Your task to perform on an android device: turn on data saver in the chrome app Image 0: 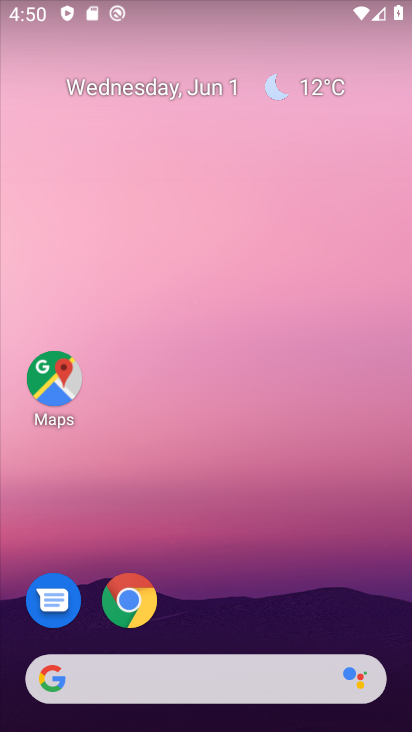
Step 0: click (128, 600)
Your task to perform on an android device: turn on data saver in the chrome app Image 1: 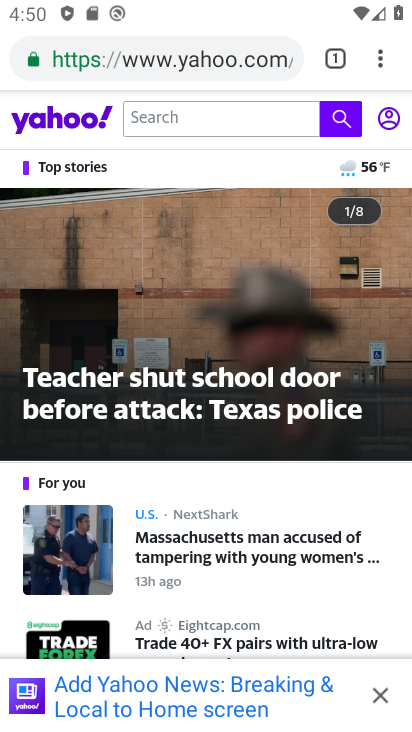
Step 1: click (381, 58)
Your task to perform on an android device: turn on data saver in the chrome app Image 2: 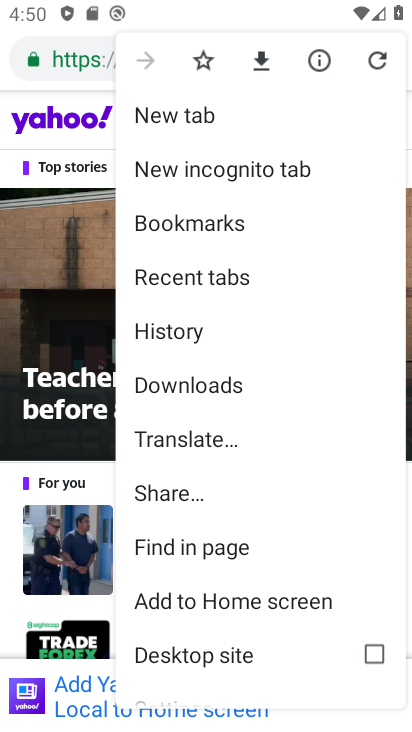
Step 2: drag from (193, 467) to (231, 391)
Your task to perform on an android device: turn on data saver in the chrome app Image 3: 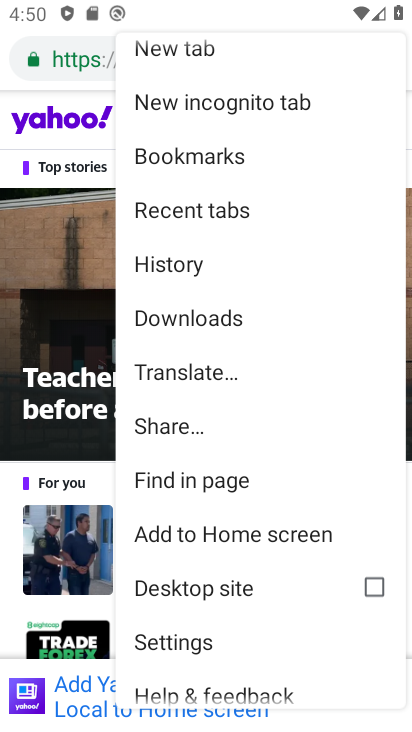
Step 3: drag from (195, 558) to (239, 491)
Your task to perform on an android device: turn on data saver in the chrome app Image 4: 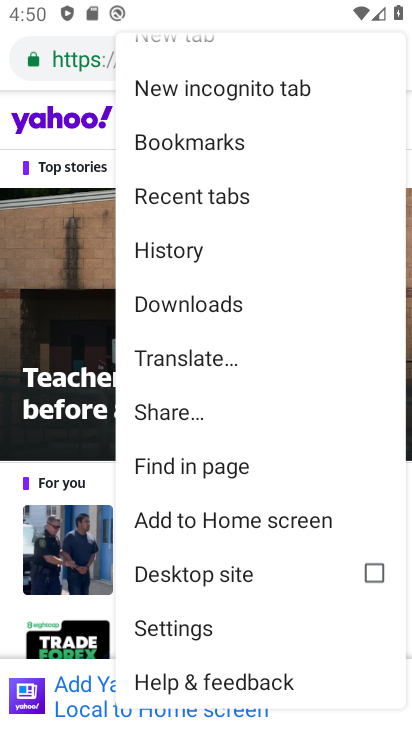
Step 4: click (180, 626)
Your task to perform on an android device: turn on data saver in the chrome app Image 5: 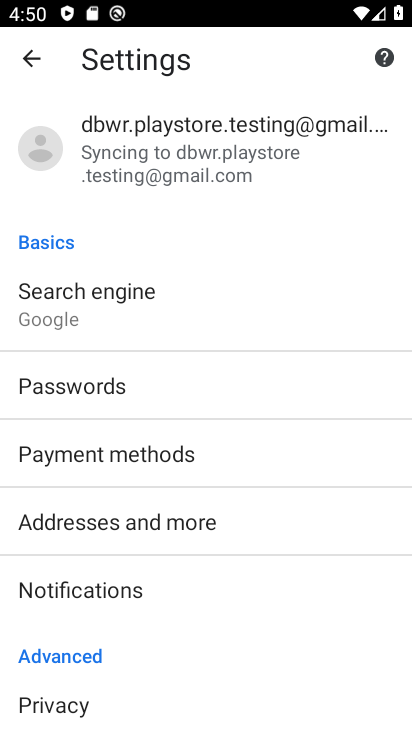
Step 5: drag from (103, 617) to (185, 514)
Your task to perform on an android device: turn on data saver in the chrome app Image 6: 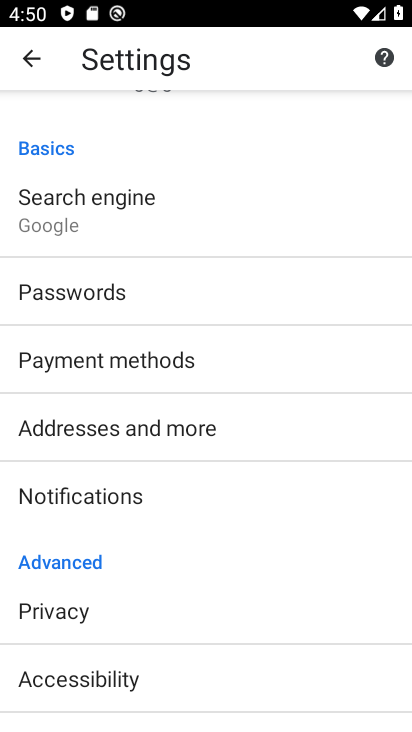
Step 6: drag from (108, 623) to (166, 548)
Your task to perform on an android device: turn on data saver in the chrome app Image 7: 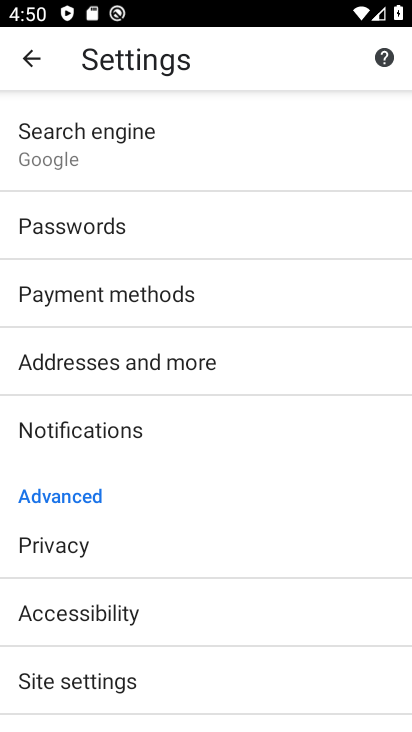
Step 7: drag from (141, 624) to (193, 547)
Your task to perform on an android device: turn on data saver in the chrome app Image 8: 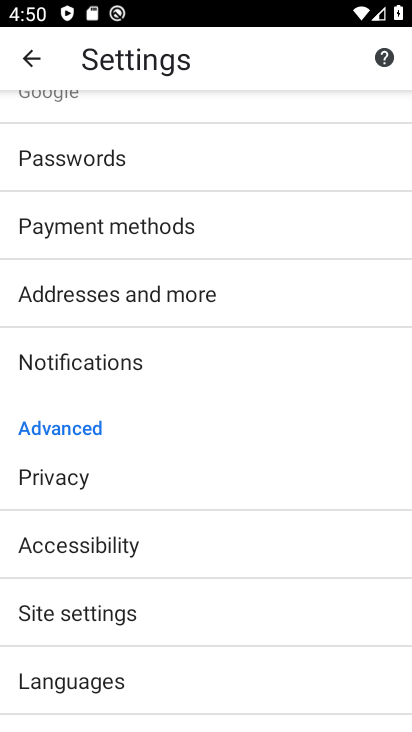
Step 8: drag from (139, 629) to (201, 532)
Your task to perform on an android device: turn on data saver in the chrome app Image 9: 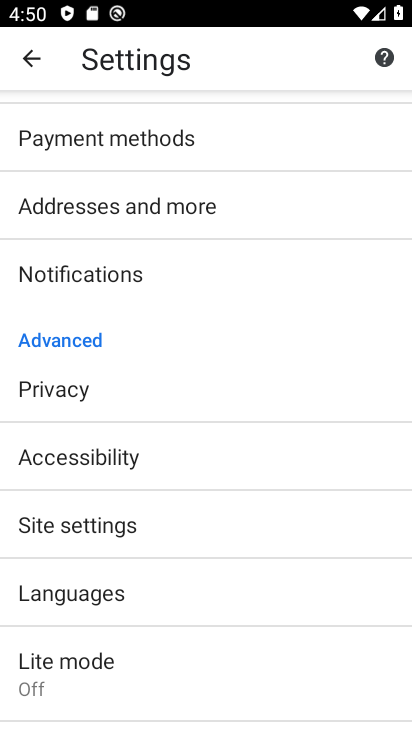
Step 9: drag from (124, 658) to (183, 584)
Your task to perform on an android device: turn on data saver in the chrome app Image 10: 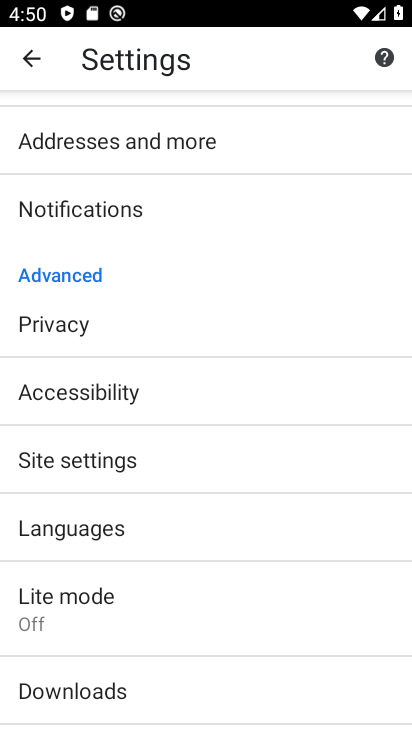
Step 10: click (126, 602)
Your task to perform on an android device: turn on data saver in the chrome app Image 11: 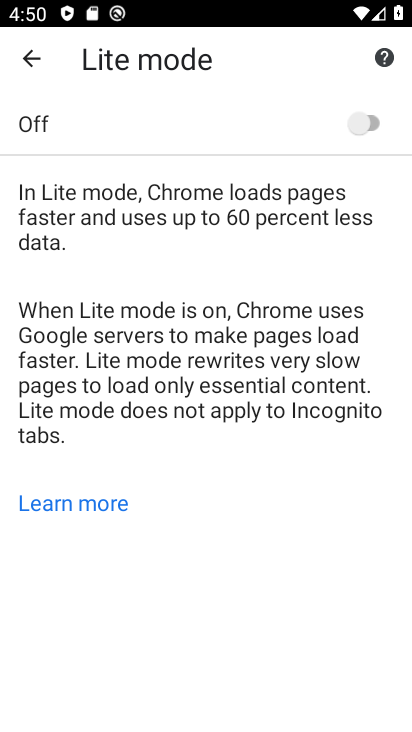
Step 11: click (369, 132)
Your task to perform on an android device: turn on data saver in the chrome app Image 12: 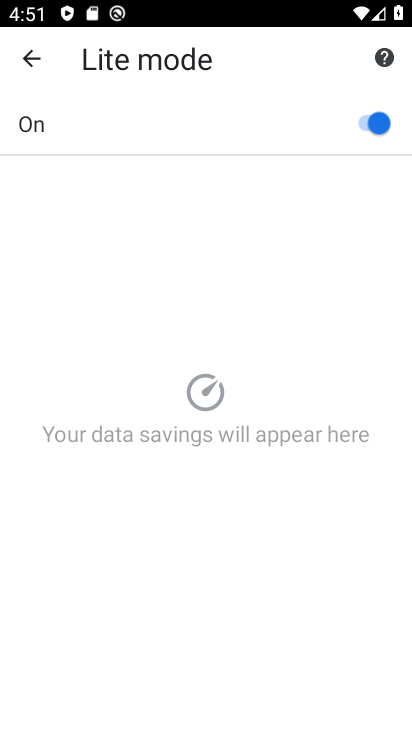
Step 12: task complete